Your task to perform on an android device: Search for seafood restaurants on Google Maps Image 0: 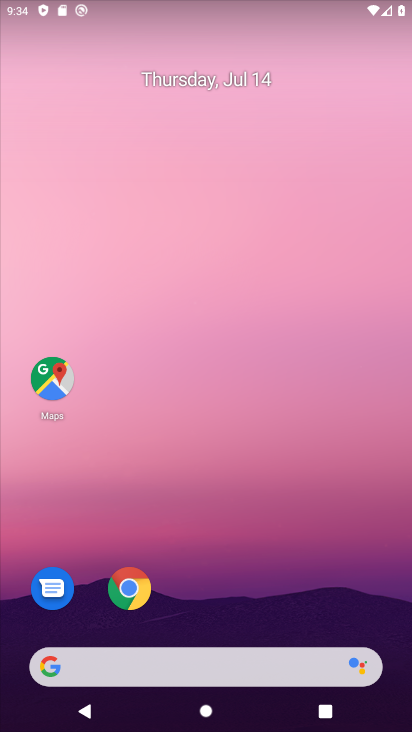
Step 0: drag from (199, 400) to (225, 37)
Your task to perform on an android device: Search for seafood restaurants on Google Maps Image 1: 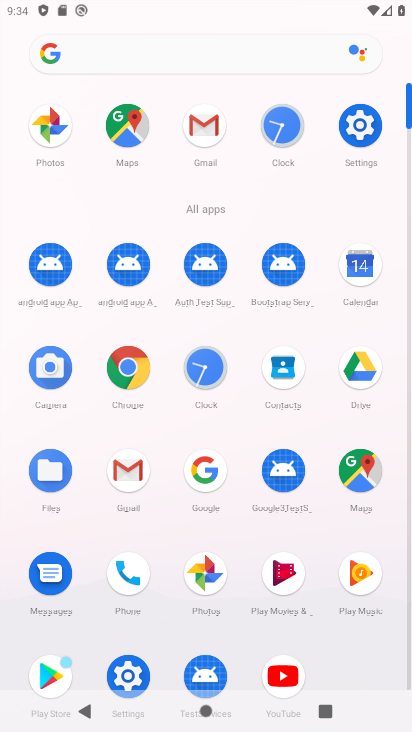
Step 1: click (359, 476)
Your task to perform on an android device: Search for seafood restaurants on Google Maps Image 2: 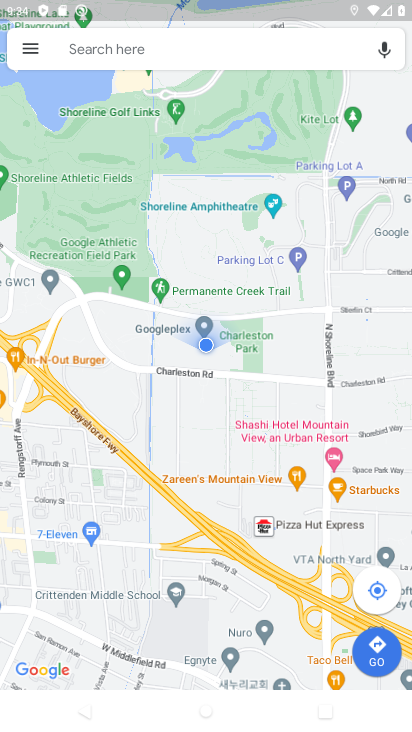
Step 2: click (138, 57)
Your task to perform on an android device: Search for seafood restaurants on Google Maps Image 3: 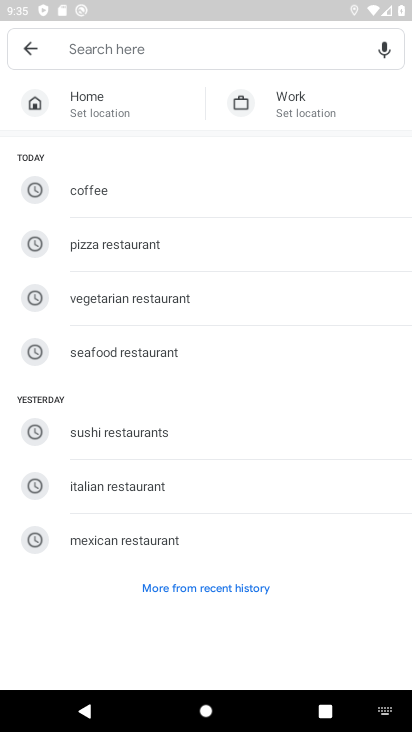
Step 3: type "Seafood restaurants"
Your task to perform on an android device: Search for seafood restaurants on Google Maps Image 4: 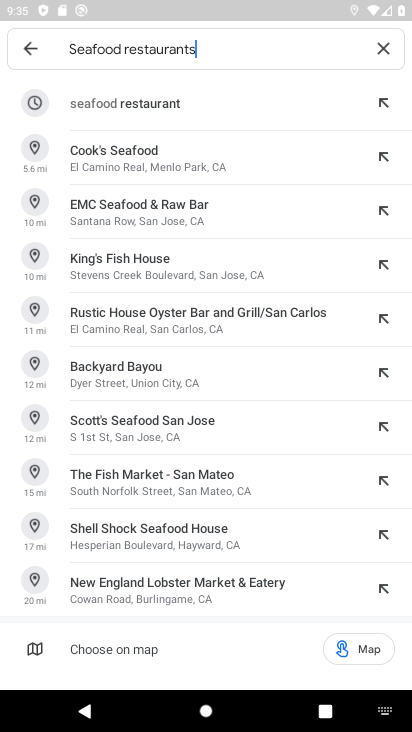
Step 4: click (198, 111)
Your task to perform on an android device: Search for seafood restaurants on Google Maps Image 5: 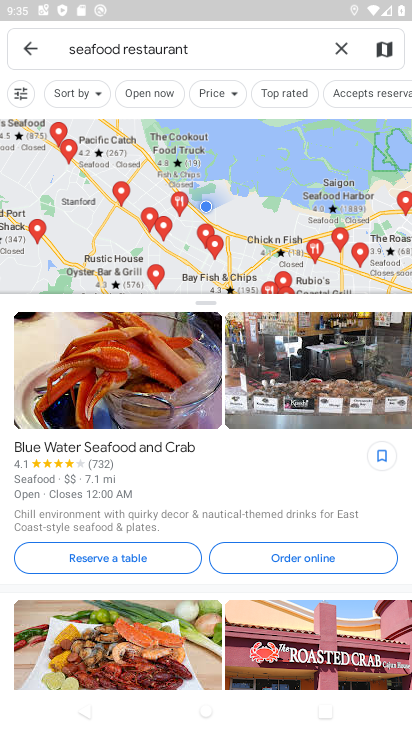
Step 5: task complete